Your task to perform on an android device: turn vacation reply on in the gmail app Image 0: 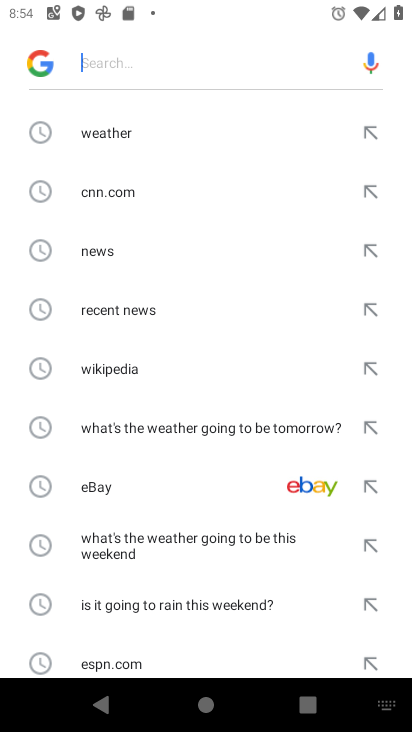
Step 0: press home button
Your task to perform on an android device: turn vacation reply on in the gmail app Image 1: 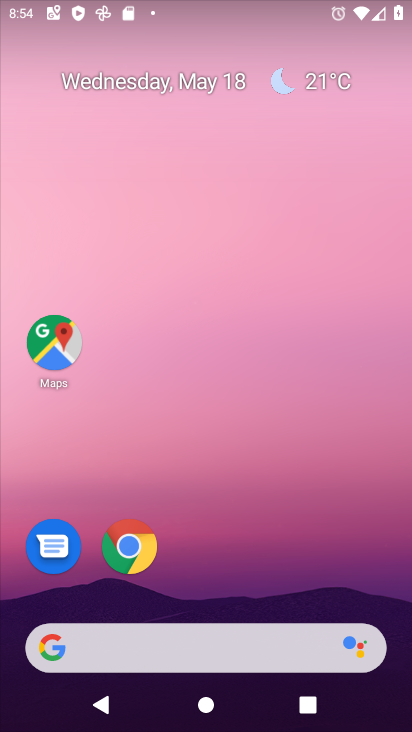
Step 1: drag from (380, 587) to (36, 28)
Your task to perform on an android device: turn vacation reply on in the gmail app Image 2: 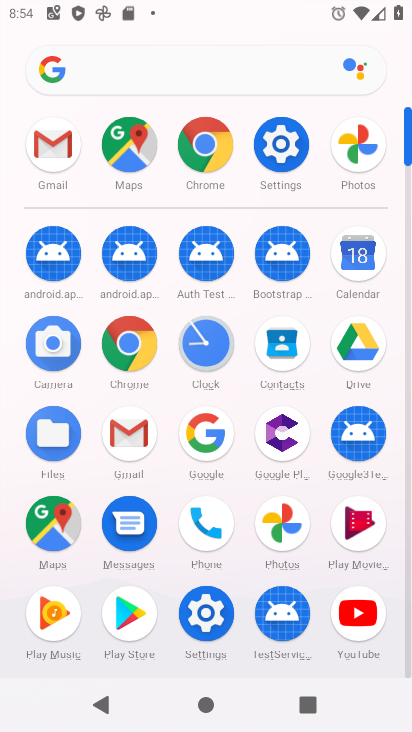
Step 2: click (151, 428)
Your task to perform on an android device: turn vacation reply on in the gmail app Image 3: 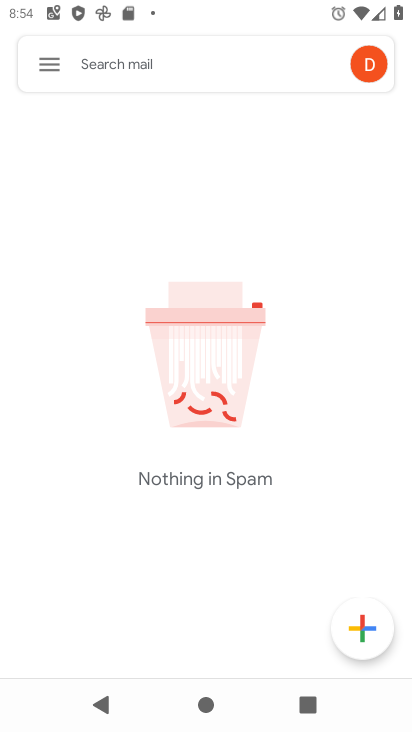
Step 3: click (47, 57)
Your task to perform on an android device: turn vacation reply on in the gmail app Image 4: 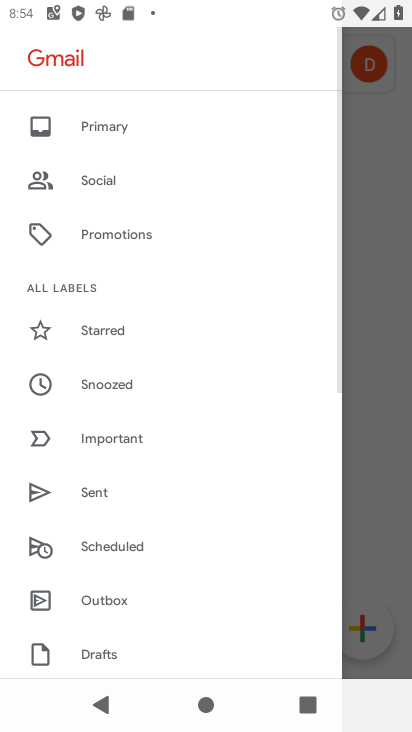
Step 4: drag from (71, 639) to (146, 102)
Your task to perform on an android device: turn vacation reply on in the gmail app Image 5: 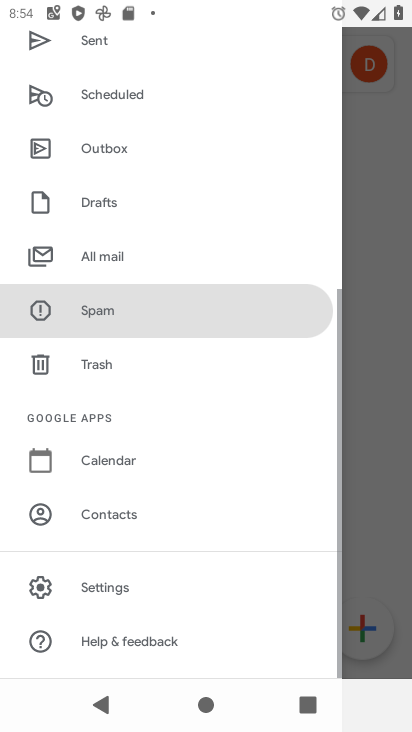
Step 5: click (97, 597)
Your task to perform on an android device: turn vacation reply on in the gmail app Image 6: 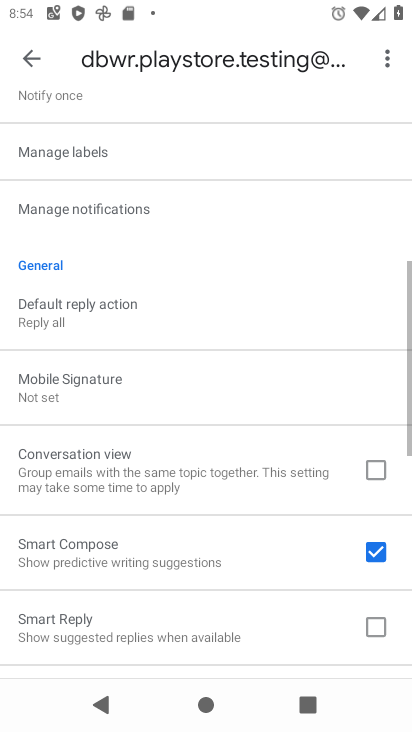
Step 6: drag from (99, 594) to (144, 93)
Your task to perform on an android device: turn vacation reply on in the gmail app Image 7: 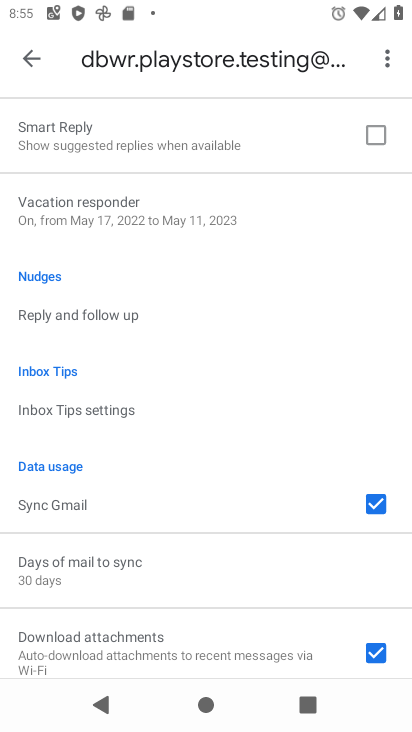
Step 7: click (128, 224)
Your task to perform on an android device: turn vacation reply on in the gmail app Image 8: 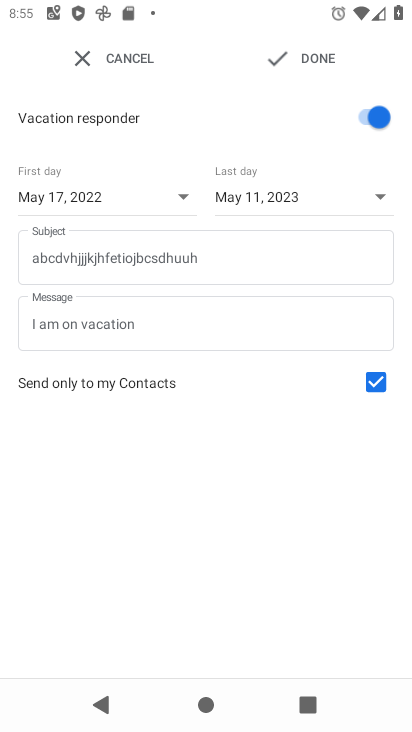
Step 8: task complete